Your task to perform on an android device: delete location history Image 0: 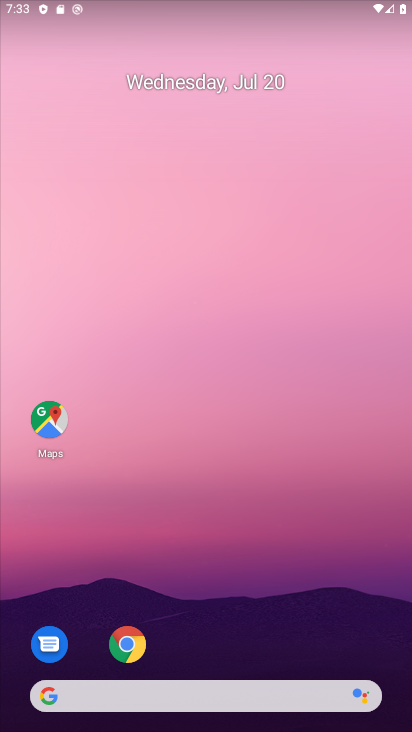
Step 0: drag from (183, 683) to (179, 262)
Your task to perform on an android device: delete location history Image 1: 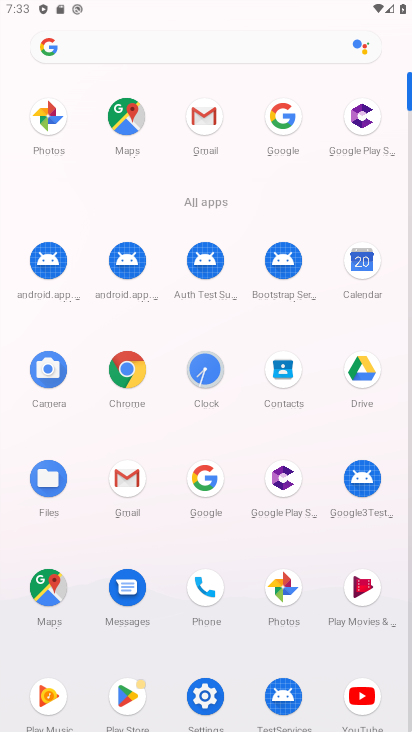
Step 1: click (199, 699)
Your task to perform on an android device: delete location history Image 2: 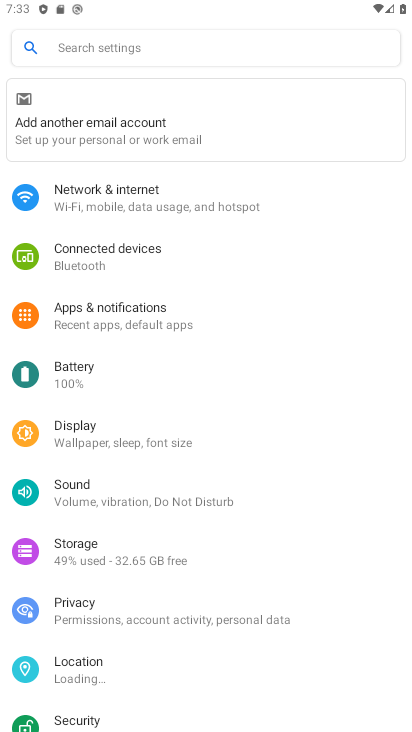
Step 2: click (105, 660)
Your task to perform on an android device: delete location history Image 3: 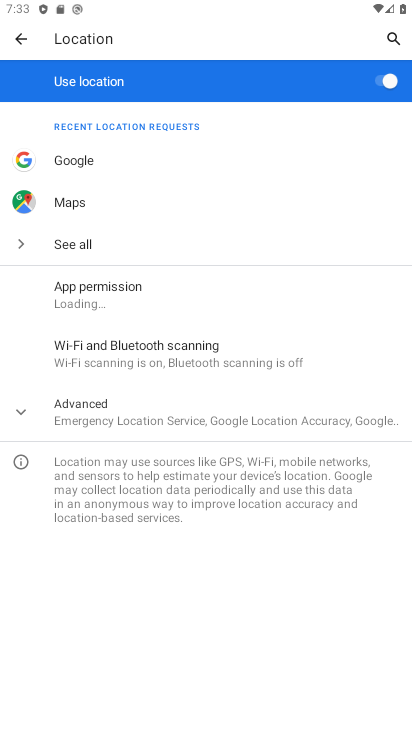
Step 3: click (88, 410)
Your task to perform on an android device: delete location history Image 4: 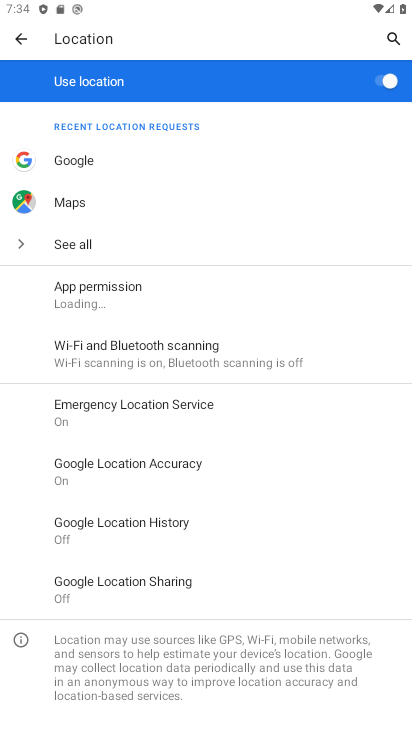
Step 4: click (113, 531)
Your task to perform on an android device: delete location history Image 5: 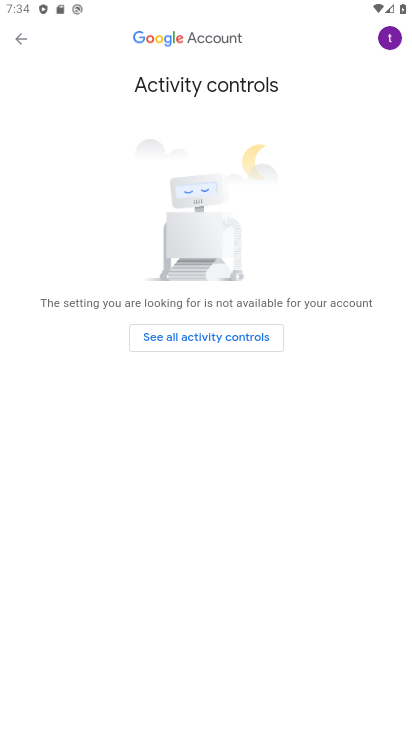
Step 5: click (211, 337)
Your task to perform on an android device: delete location history Image 6: 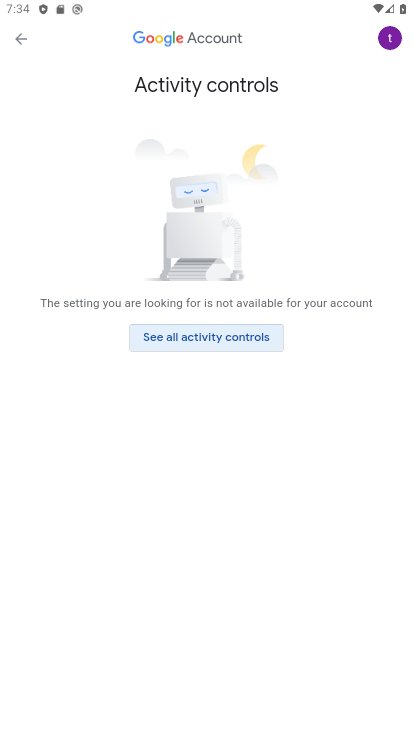
Step 6: click (188, 332)
Your task to perform on an android device: delete location history Image 7: 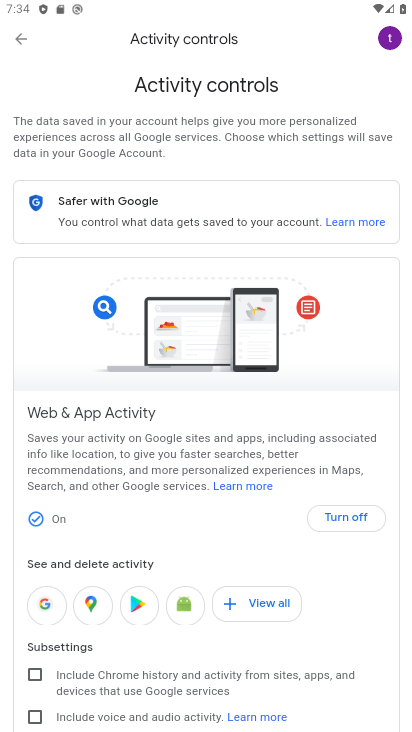
Step 7: drag from (209, 693) to (189, 419)
Your task to perform on an android device: delete location history Image 8: 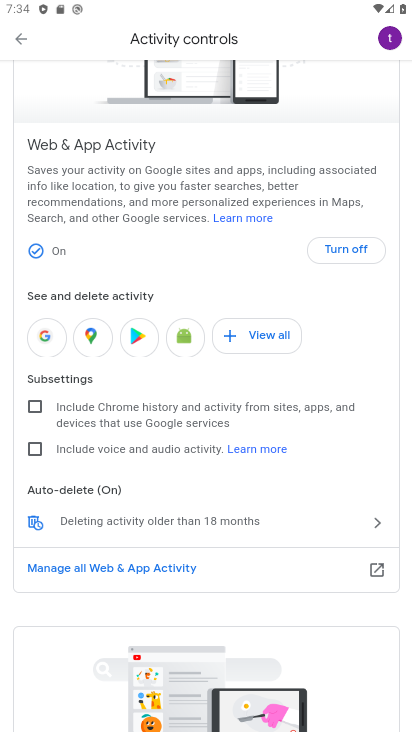
Step 8: click (97, 522)
Your task to perform on an android device: delete location history Image 9: 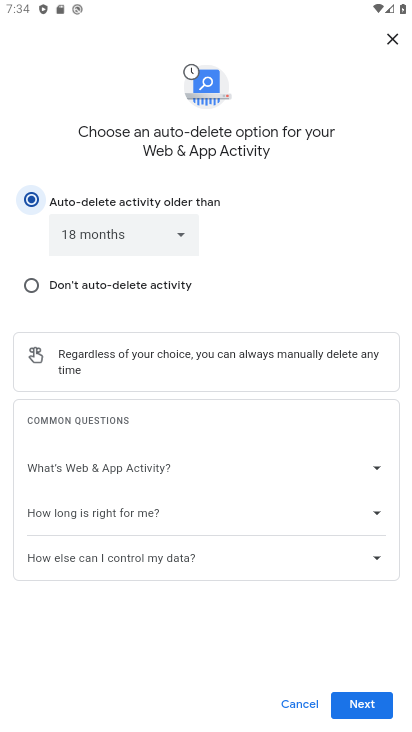
Step 9: click (360, 707)
Your task to perform on an android device: delete location history Image 10: 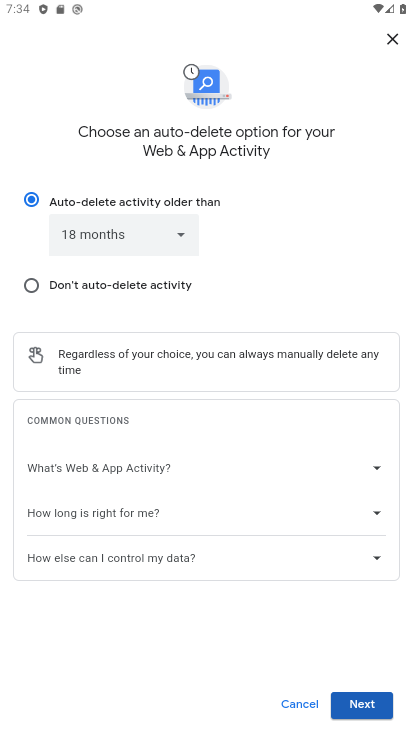
Step 10: click (359, 705)
Your task to perform on an android device: delete location history Image 11: 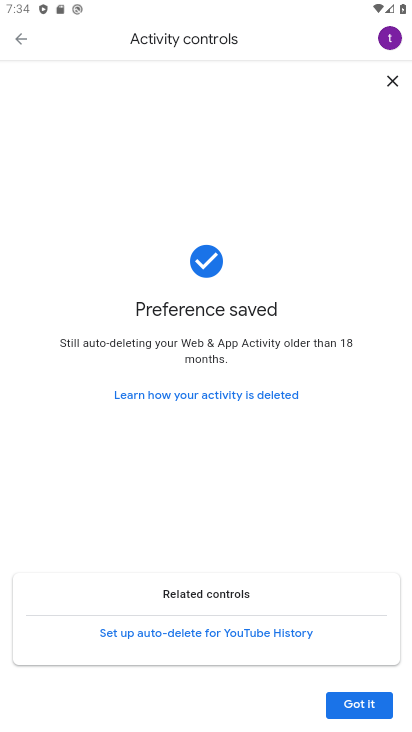
Step 11: click (359, 705)
Your task to perform on an android device: delete location history Image 12: 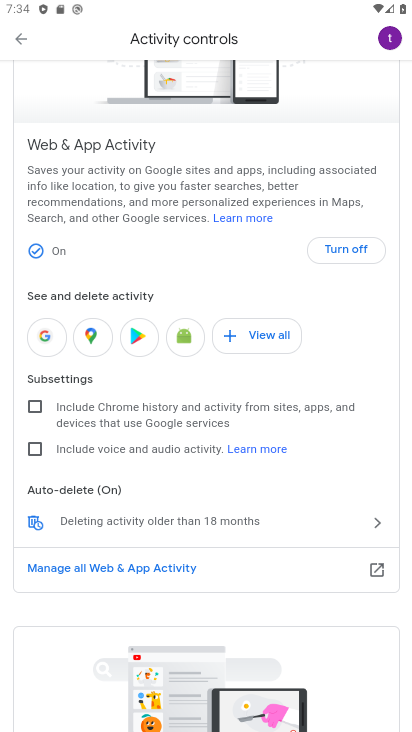
Step 12: task complete